Your task to perform on an android device: open device folders in google photos Image 0: 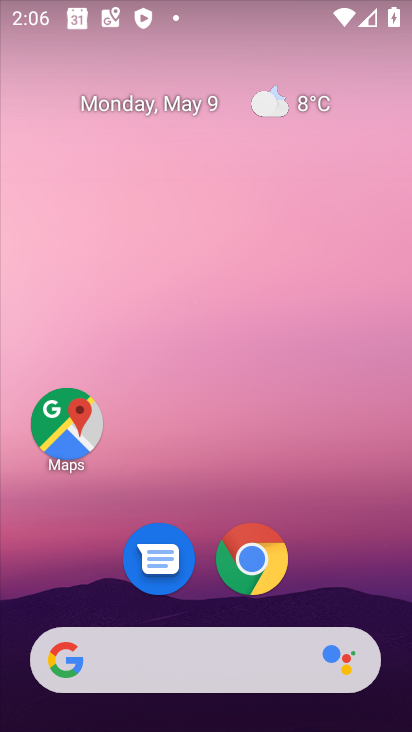
Step 0: drag from (328, 547) to (241, 56)
Your task to perform on an android device: open device folders in google photos Image 1: 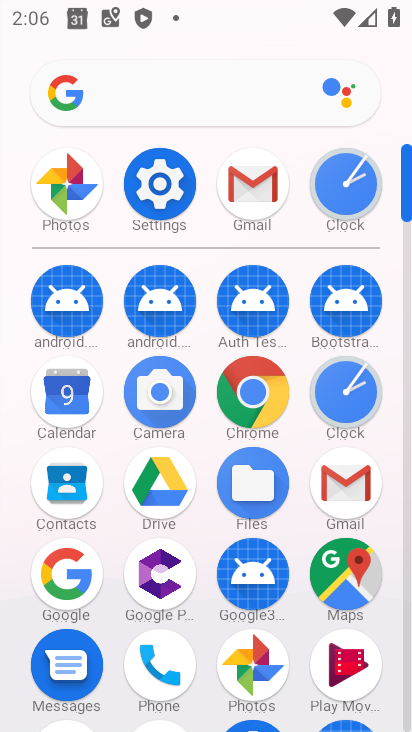
Step 1: click (60, 181)
Your task to perform on an android device: open device folders in google photos Image 2: 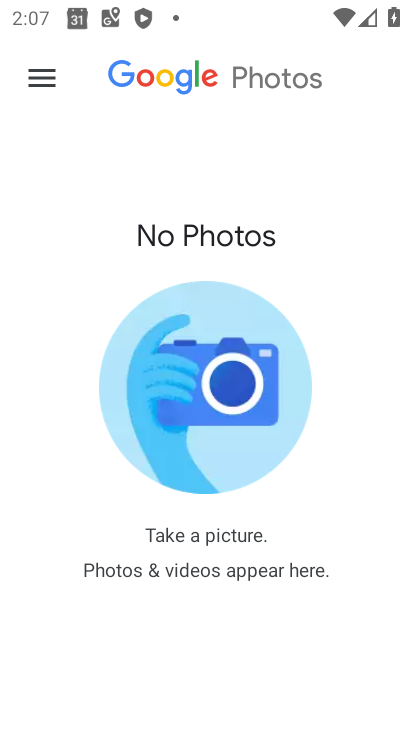
Step 2: click (39, 74)
Your task to perform on an android device: open device folders in google photos Image 3: 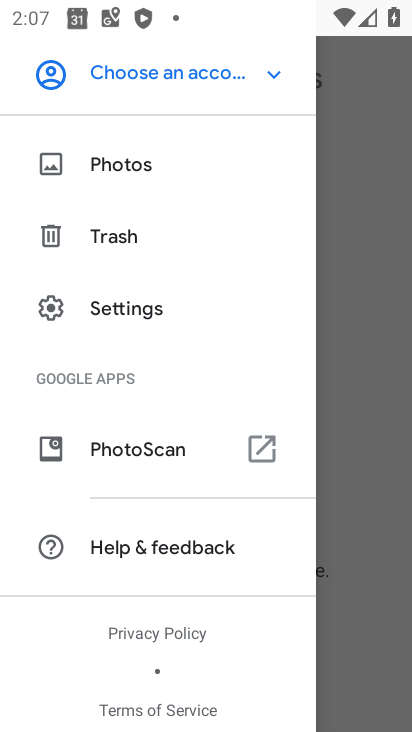
Step 3: click (352, 367)
Your task to perform on an android device: open device folders in google photos Image 4: 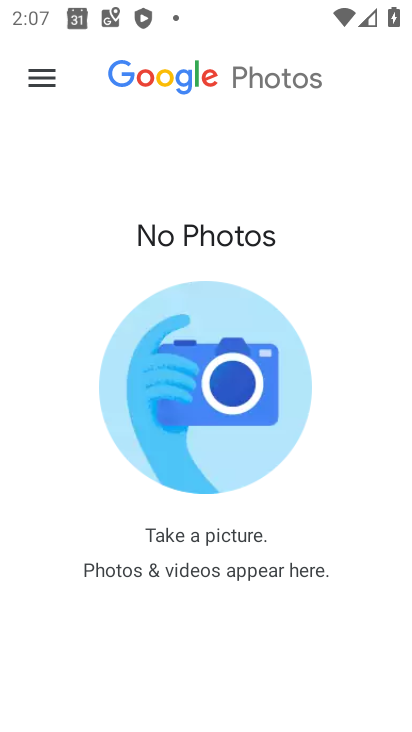
Step 4: click (38, 78)
Your task to perform on an android device: open device folders in google photos Image 5: 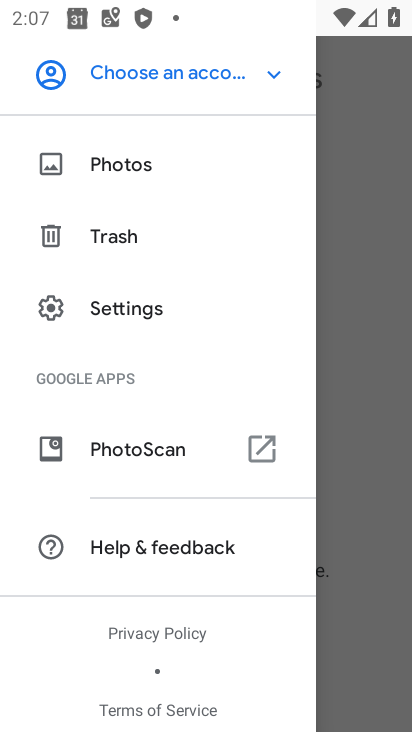
Step 5: click (121, 314)
Your task to perform on an android device: open device folders in google photos Image 6: 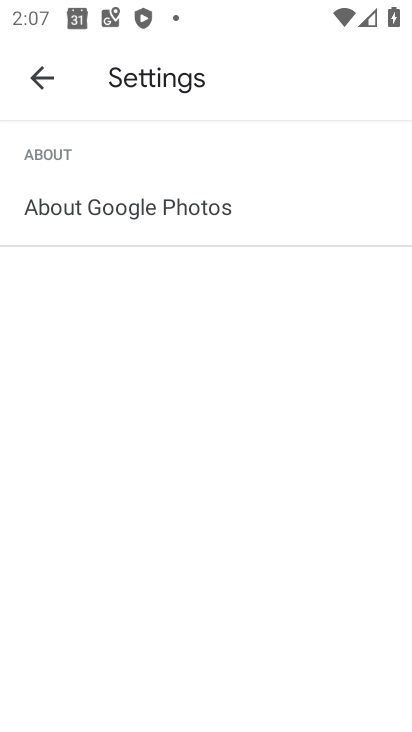
Step 6: click (108, 205)
Your task to perform on an android device: open device folders in google photos Image 7: 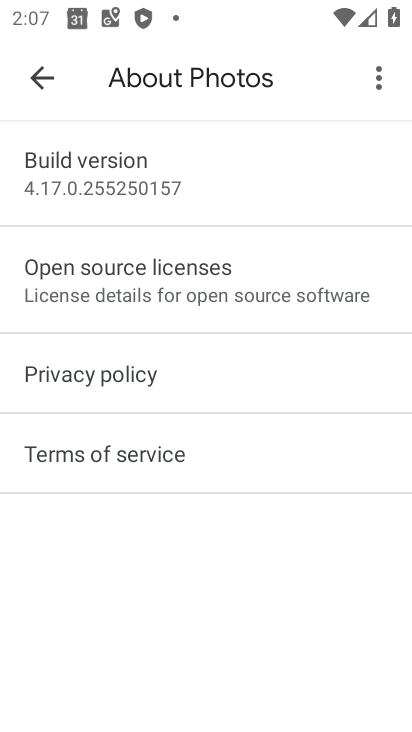
Step 7: click (40, 80)
Your task to perform on an android device: open device folders in google photos Image 8: 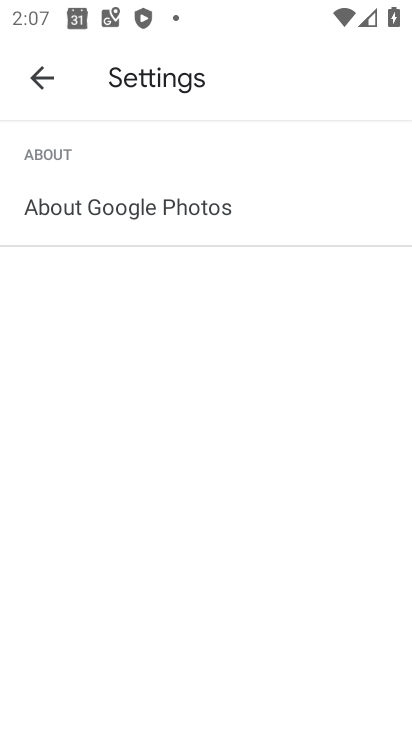
Step 8: click (40, 80)
Your task to perform on an android device: open device folders in google photos Image 9: 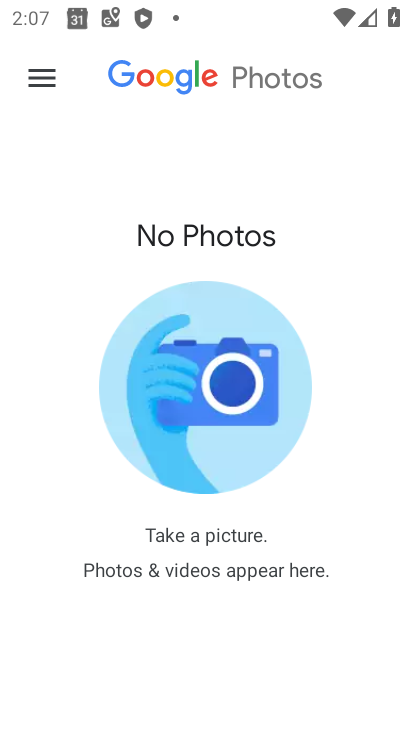
Step 9: task complete